Your task to perform on an android device: What time is it in Berlin? Image 0: 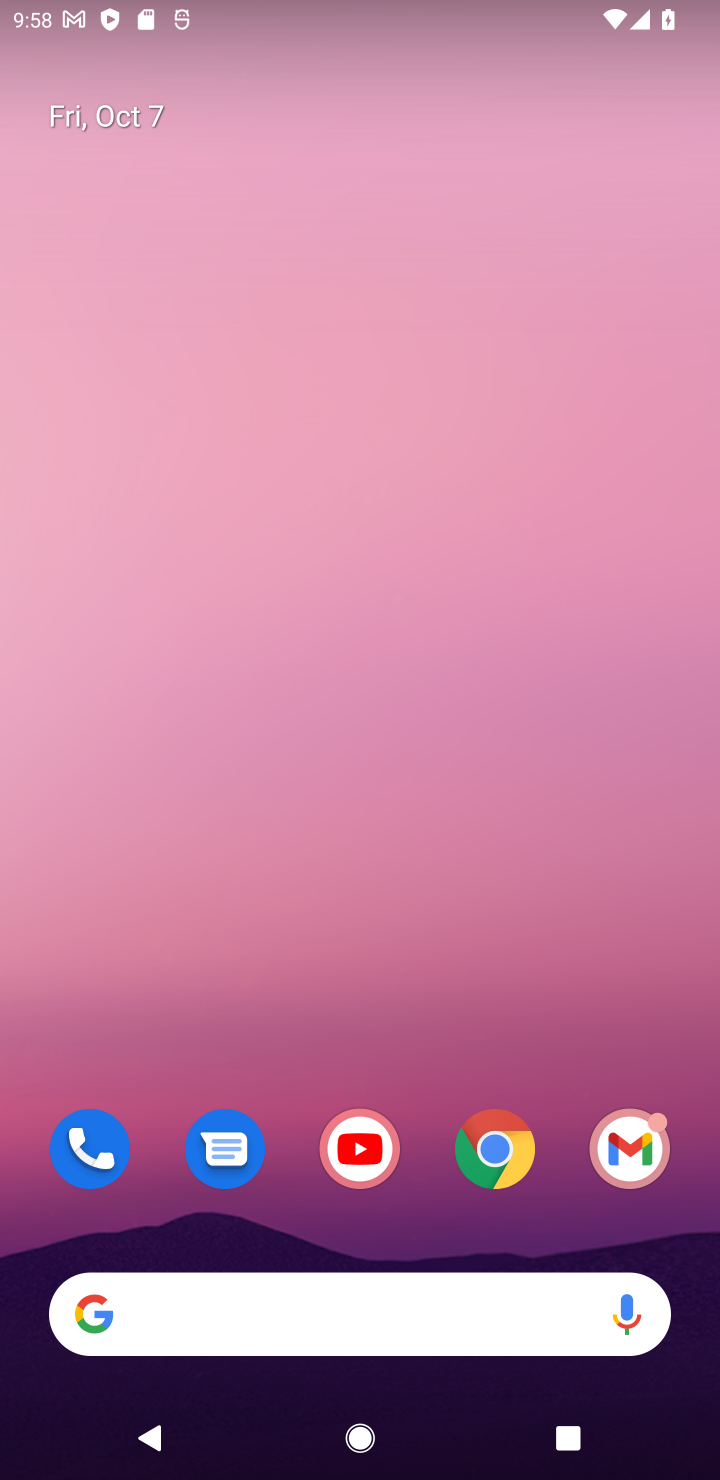
Step 0: click (310, 1317)
Your task to perform on an android device: What time is it in Berlin? Image 1: 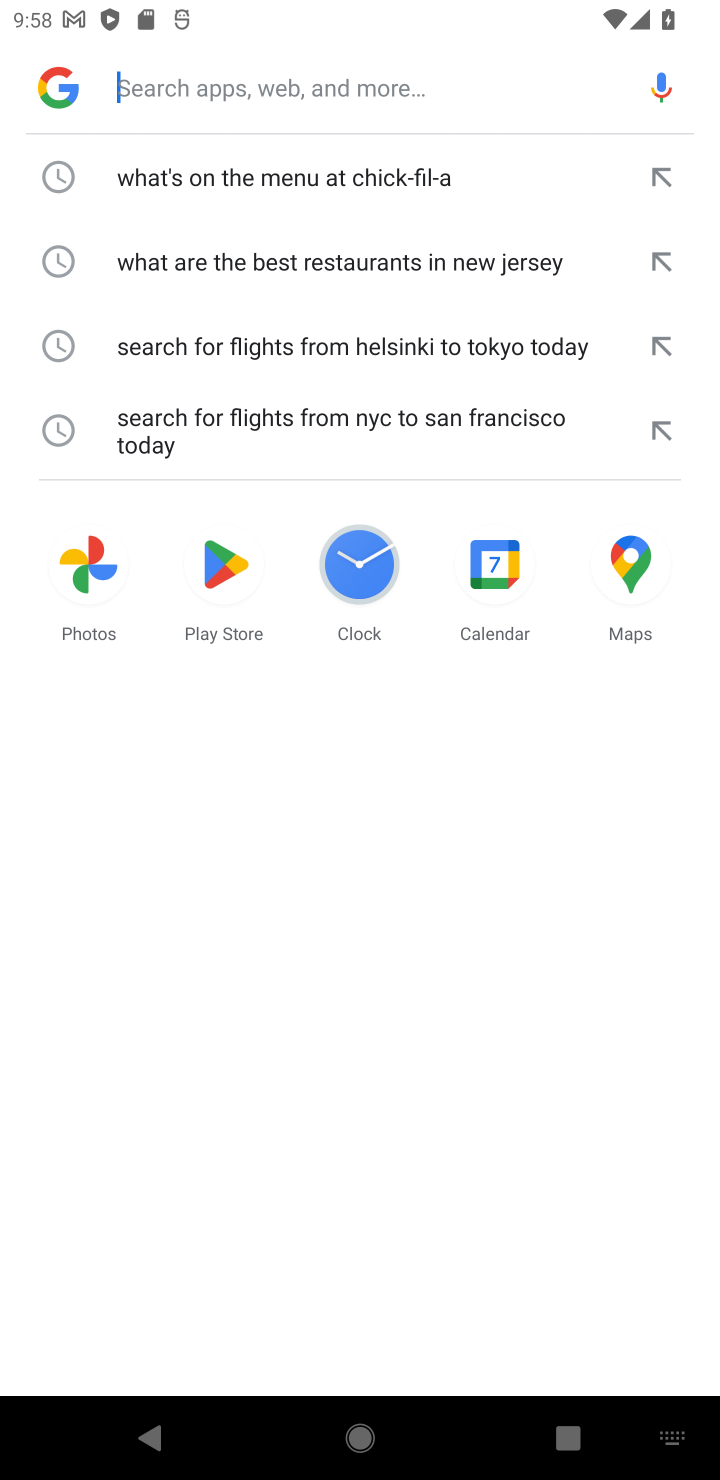
Step 1: type "What time is it in Berlin?"
Your task to perform on an android device: What time is it in Berlin? Image 2: 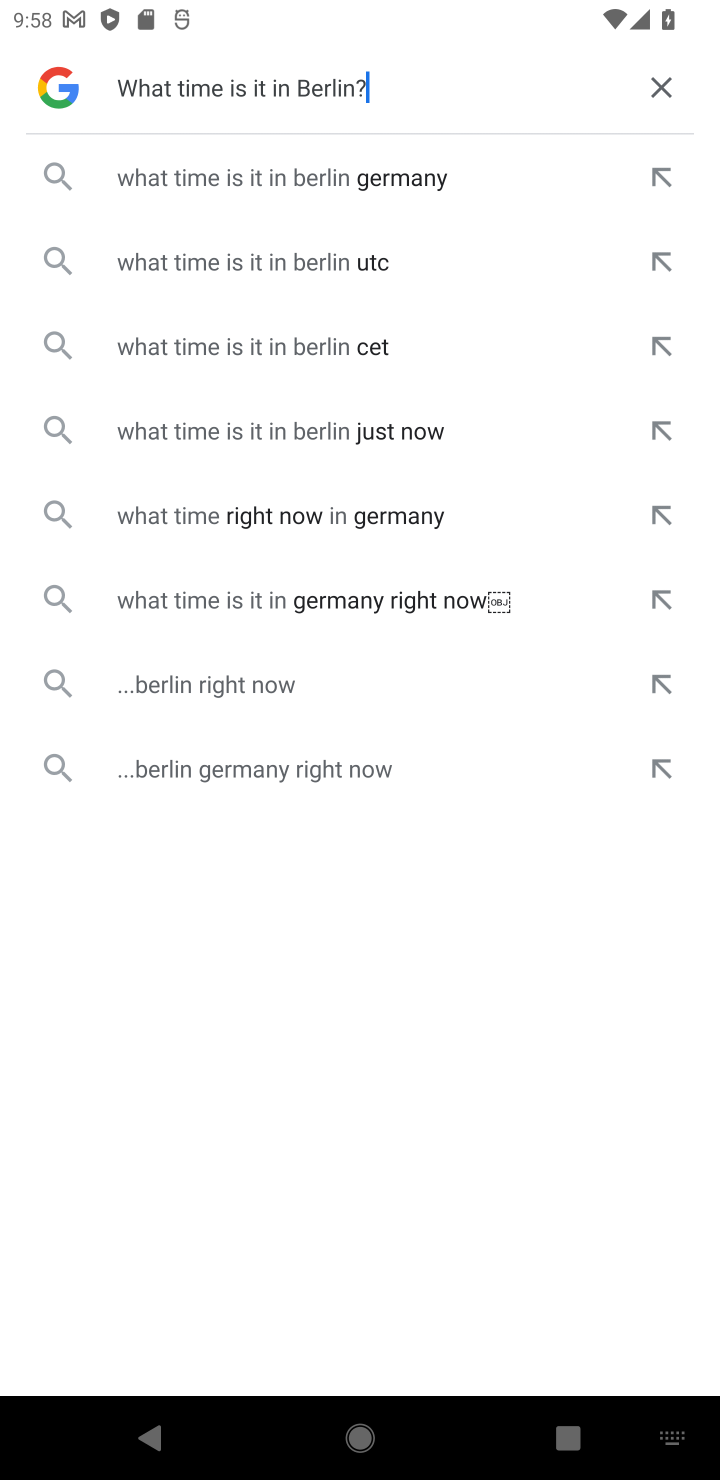
Step 2: click (258, 159)
Your task to perform on an android device: What time is it in Berlin? Image 3: 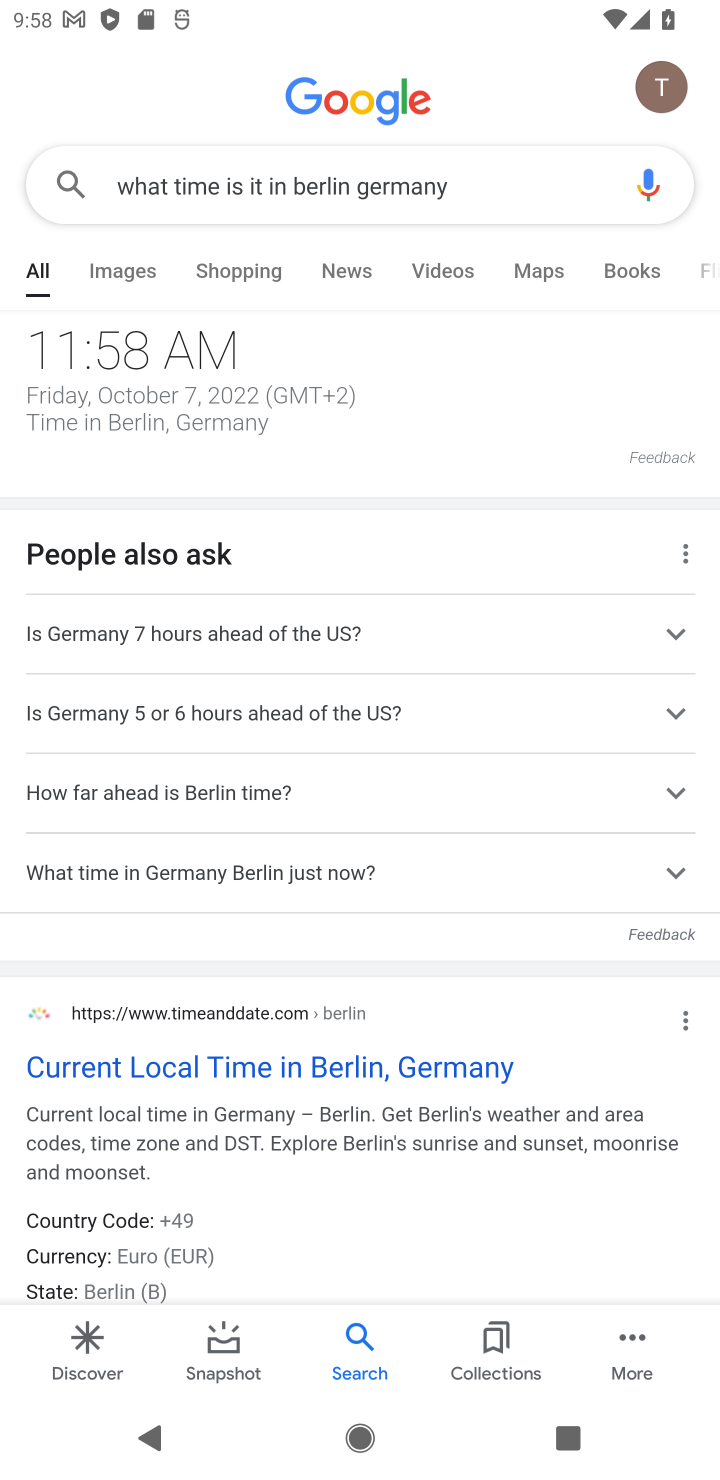
Step 3: task complete